Your task to perform on an android device: turn vacation reply on in the gmail app Image 0: 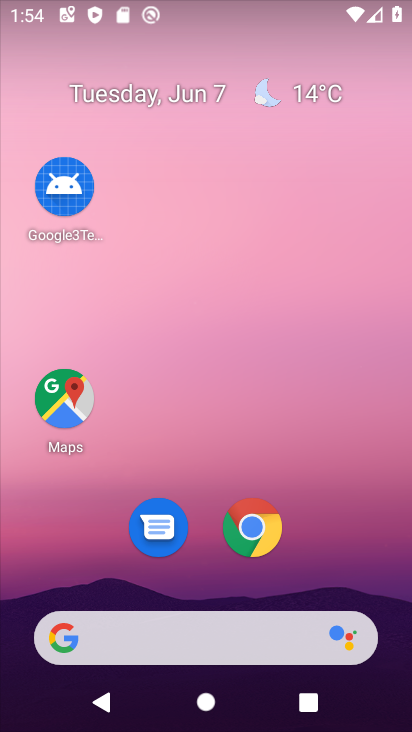
Step 0: drag from (325, 583) to (356, 75)
Your task to perform on an android device: turn vacation reply on in the gmail app Image 1: 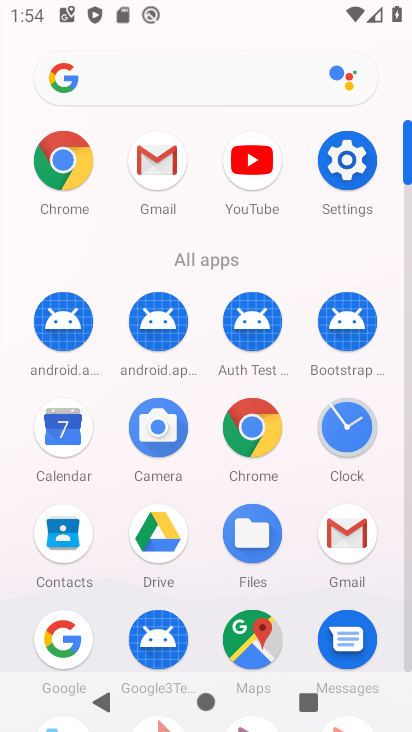
Step 1: click (342, 548)
Your task to perform on an android device: turn vacation reply on in the gmail app Image 2: 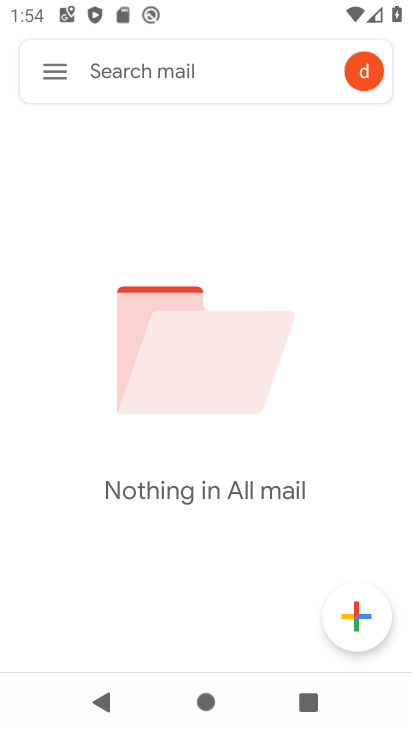
Step 2: click (55, 66)
Your task to perform on an android device: turn vacation reply on in the gmail app Image 3: 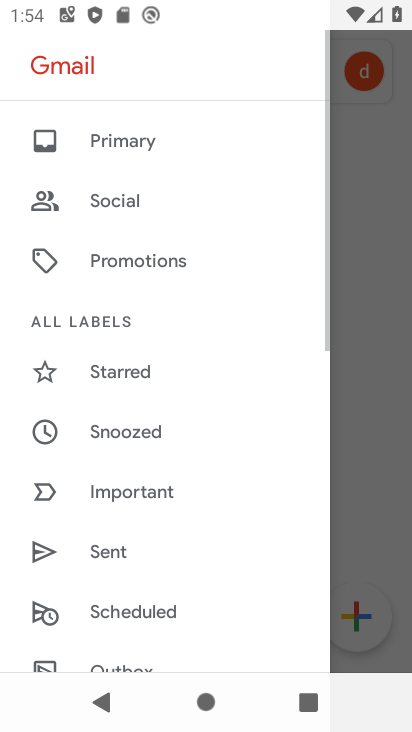
Step 3: drag from (124, 632) to (133, 80)
Your task to perform on an android device: turn vacation reply on in the gmail app Image 4: 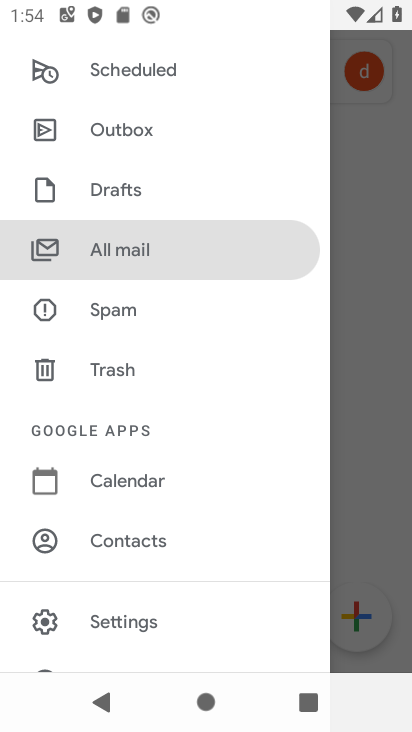
Step 4: click (153, 607)
Your task to perform on an android device: turn vacation reply on in the gmail app Image 5: 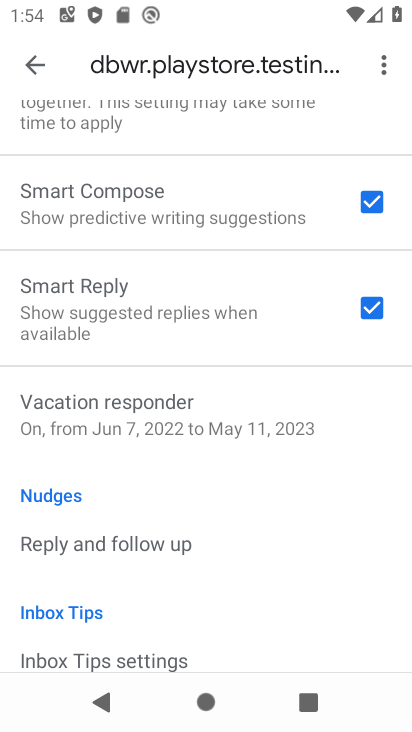
Step 5: task complete